Your task to perform on an android device: empty trash in the gmail app Image 0: 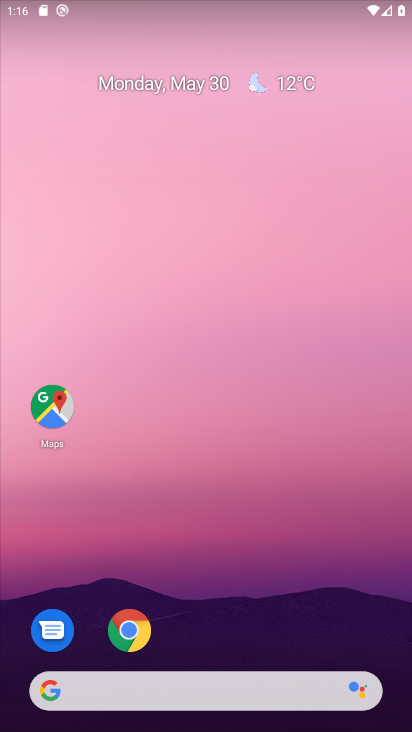
Step 0: drag from (195, 682) to (241, 203)
Your task to perform on an android device: empty trash in the gmail app Image 1: 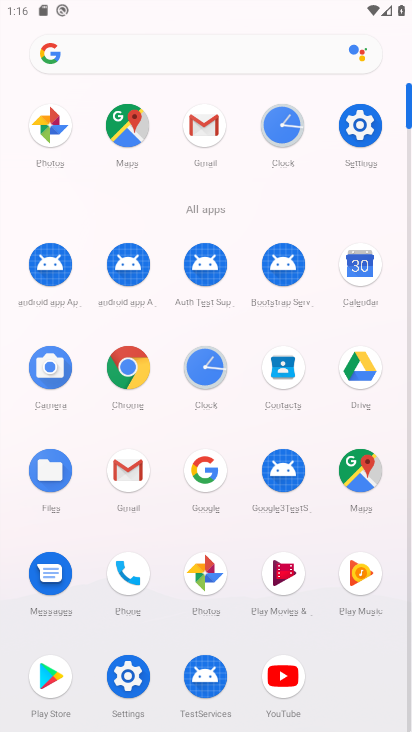
Step 1: click (129, 476)
Your task to perform on an android device: empty trash in the gmail app Image 2: 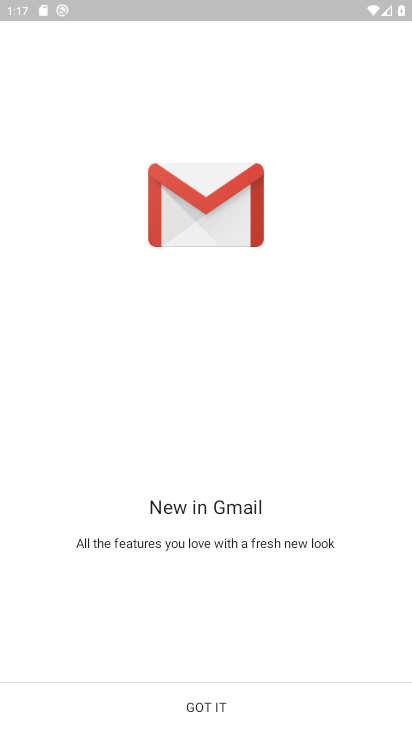
Step 2: click (217, 706)
Your task to perform on an android device: empty trash in the gmail app Image 3: 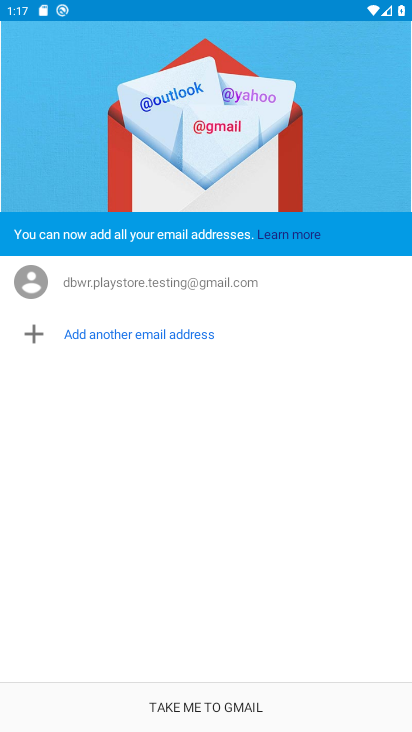
Step 3: click (190, 707)
Your task to perform on an android device: empty trash in the gmail app Image 4: 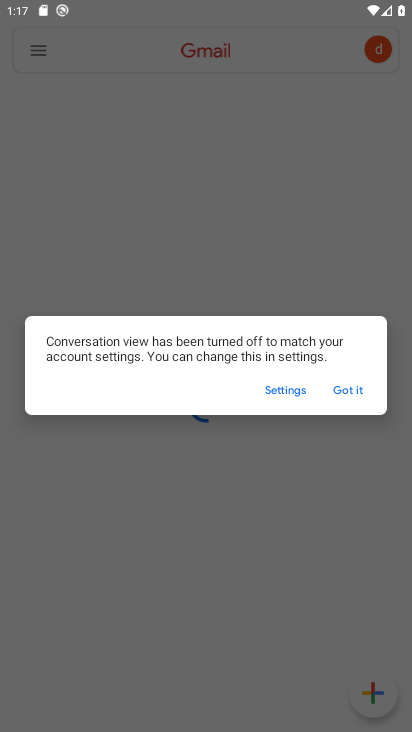
Step 4: click (356, 388)
Your task to perform on an android device: empty trash in the gmail app Image 5: 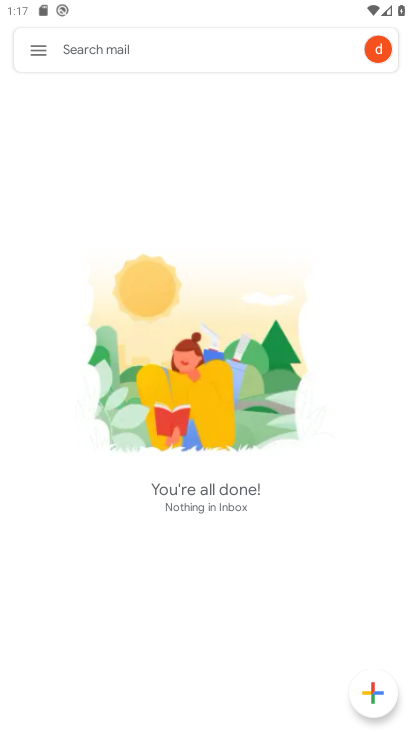
Step 5: click (35, 46)
Your task to perform on an android device: empty trash in the gmail app Image 6: 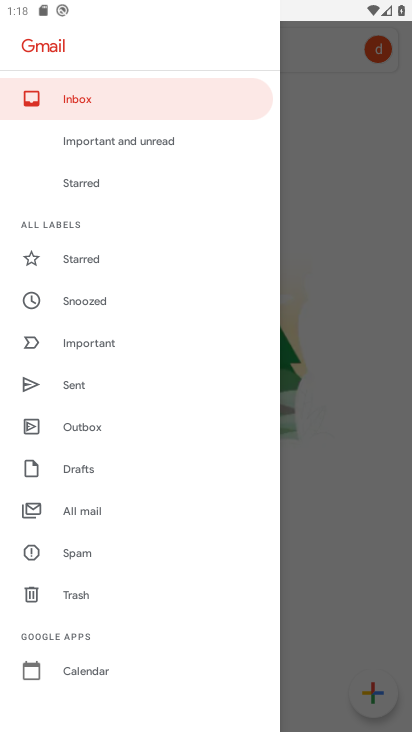
Step 6: click (41, 589)
Your task to perform on an android device: empty trash in the gmail app Image 7: 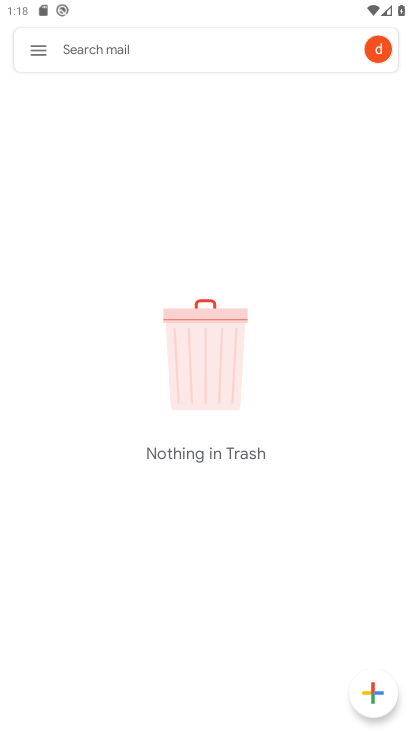
Step 7: task complete